Your task to perform on an android device: open sync settings in chrome Image 0: 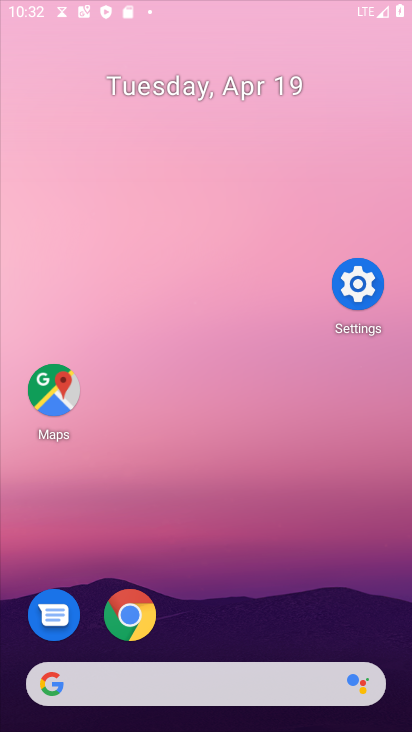
Step 0: drag from (264, 197) to (130, 102)
Your task to perform on an android device: open sync settings in chrome Image 1: 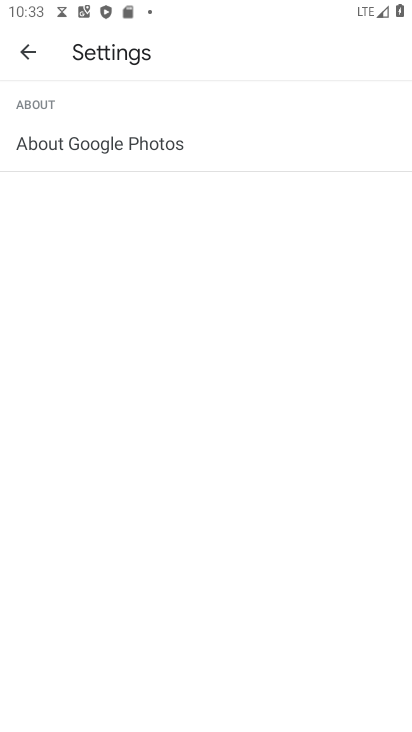
Step 1: click (15, 44)
Your task to perform on an android device: open sync settings in chrome Image 2: 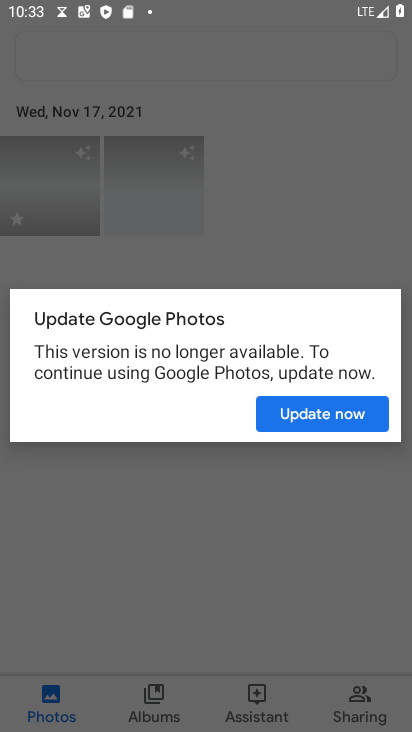
Step 2: drag from (222, 446) to (154, 6)
Your task to perform on an android device: open sync settings in chrome Image 3: 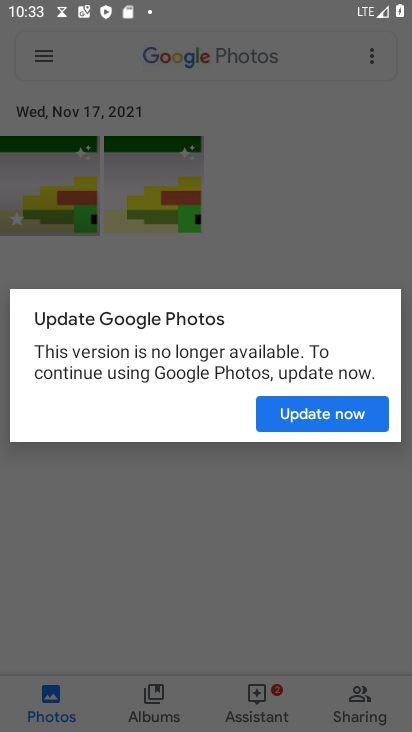
Step 3: click (87, 174)
Your task to perform on an android device: open sync settings in chrome Image 4: 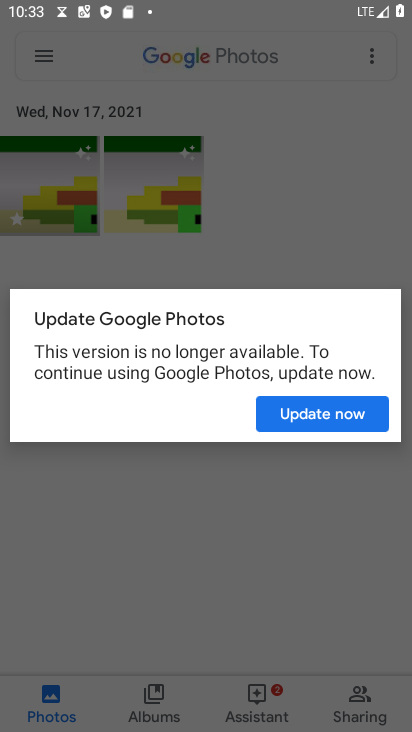
Step 4: press home button
Your task to perform on an android device: open sync settings in chrome Image 5: 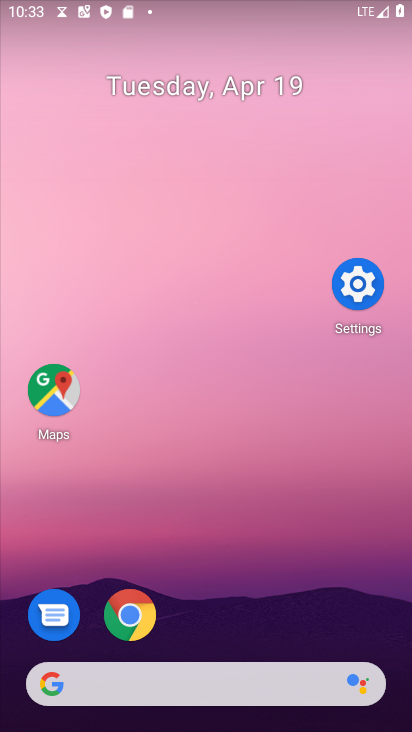
Step 5: drag from (196, 643) to (225, 37)
Your task to perform on an android device: open sync settings in chrome Image 6: 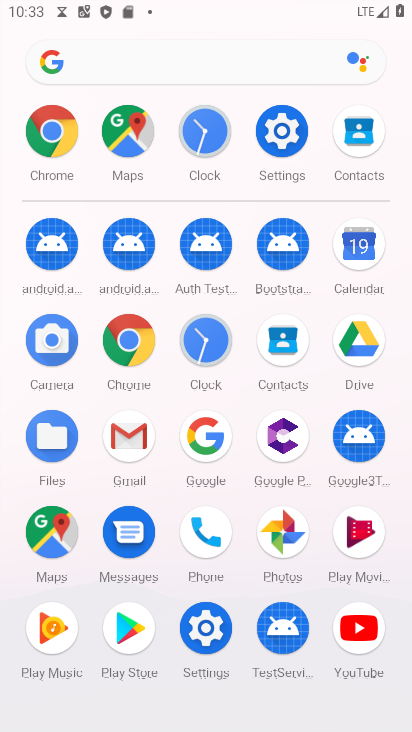
Step 6: click (116, 325)
Your task to perform on an android device: open sync settings in chrome Image 7: 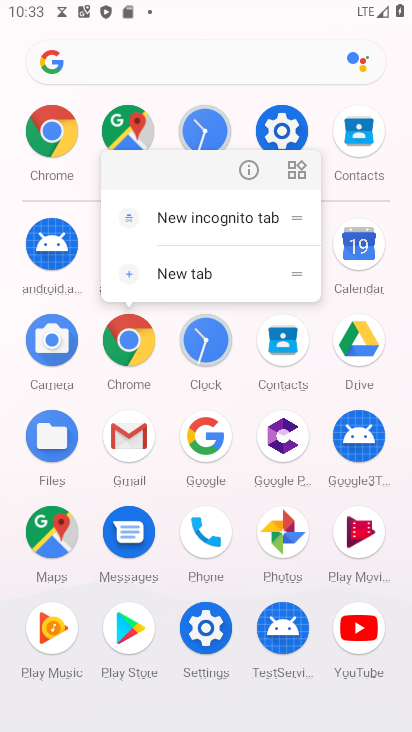
Step 7: click (233, 167)
Your task to perform on an android device: open sync settings in chrome Image 8: 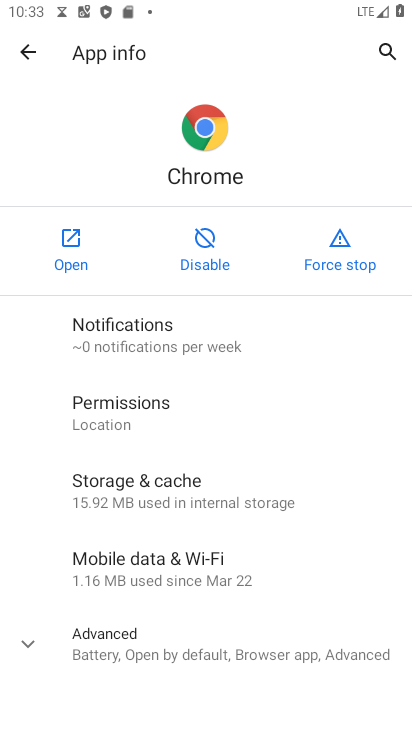
Step 8: click (60, 236)
Your task to perform on an android device: open sync settings in chrome Image 9: 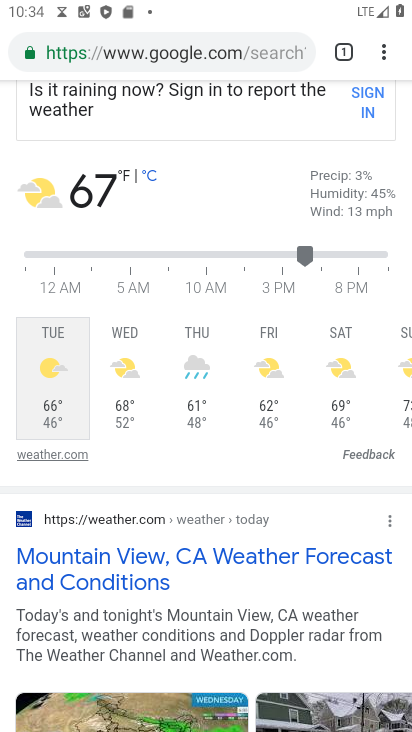
Step 9: drag from (230, 584) to (297, 226)
Your task to perform on an android device: open sync settings in chrome Image 10: 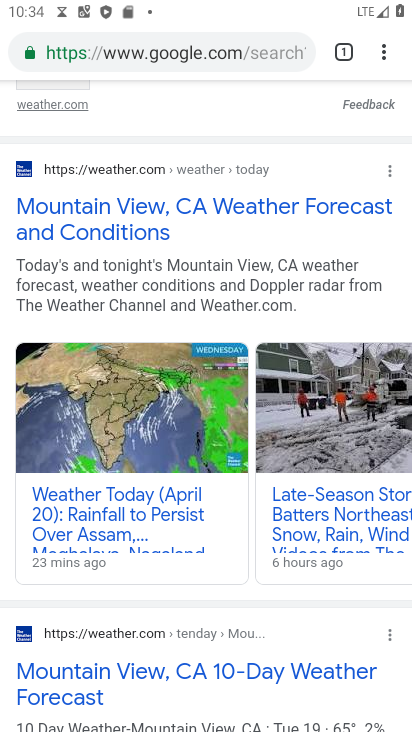
Step 10: drag from (234, 637) to (271, 156)
Your task to perform on an android device: open sync settings in chrome Image 11: 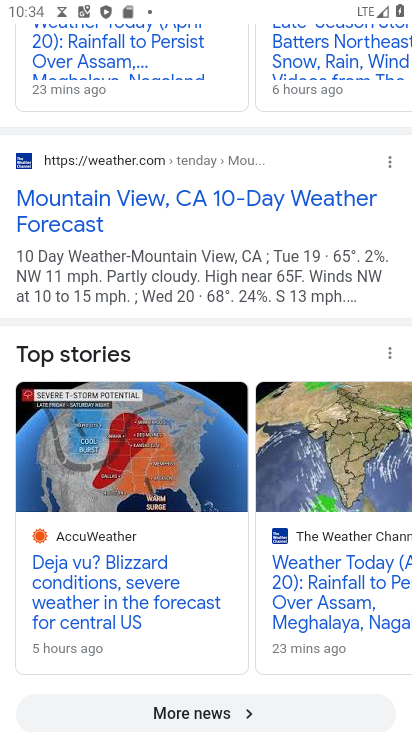
Step 11: drag from (245, 717) to (268, 267)
Your task to perform on an android device: open sync settings in chrome Image 12: 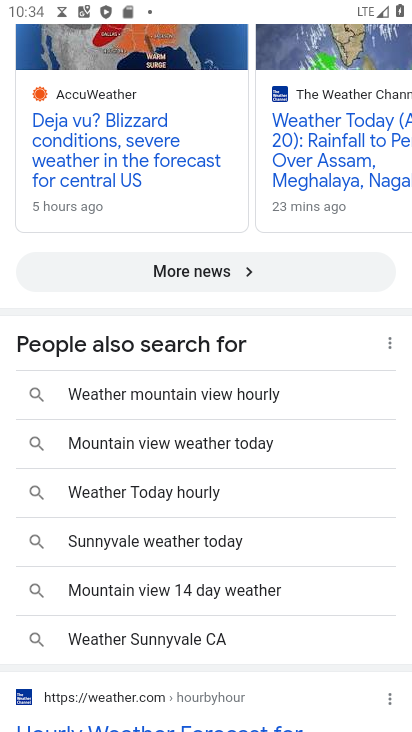
Step 12: drag from (188, 649) to (242, 266)
Your task to perform on an android device: open sync settings in chrome Image 13: 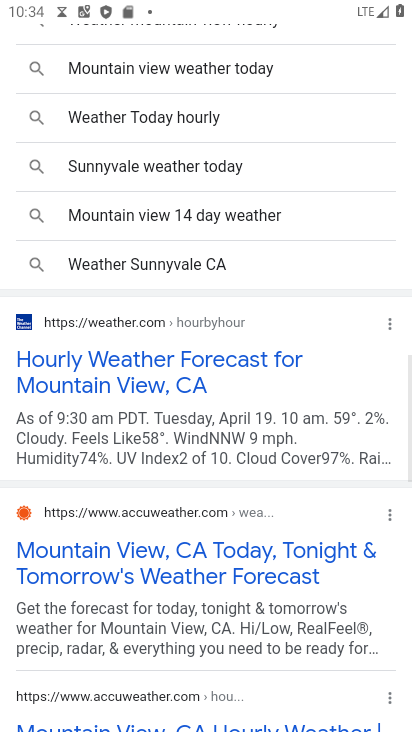
Step 13: drag from (209, 106) to (277, 730)
Your task to perform on an android device: open sync settings in chrome Image 14: 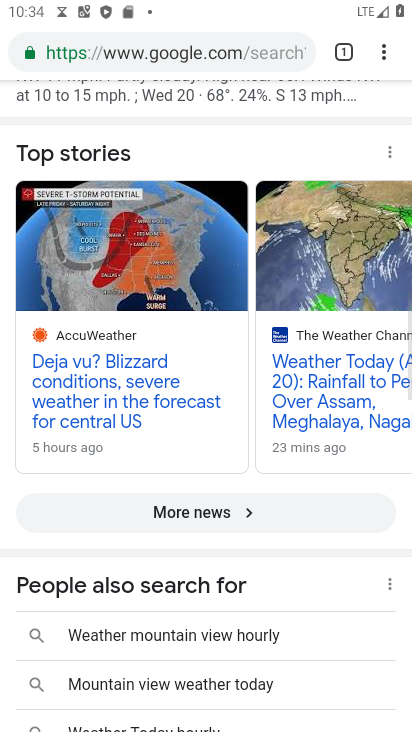
Step 14: drag from (234, 174) to (408, 607)
Your task to perform on an android device: open sync settings in chrome Image 15: 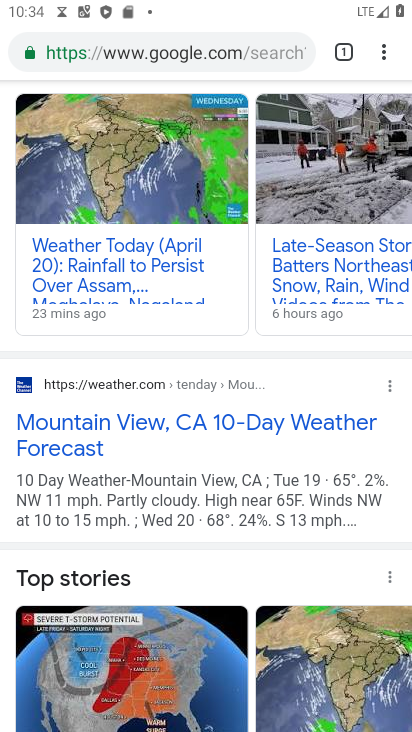
Step 15: drag from (389, 53) to (240, 582)
Your task to perform on an android device: open sync settings in chrome Image 16: 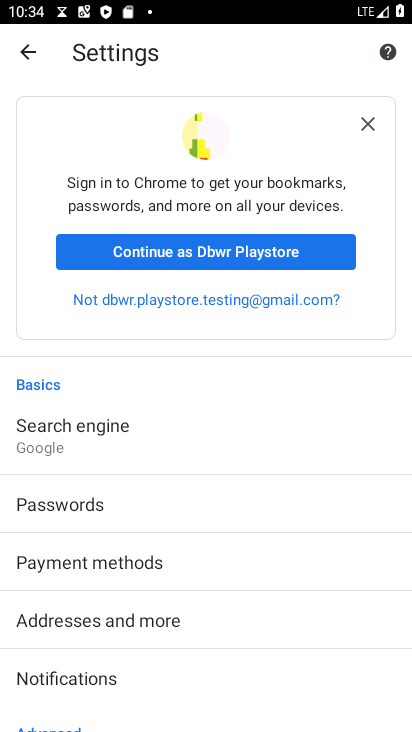
Step 16: drag from (199, 494) to (228, 119)
Your task to perform on an android device: open sync settings in chrome Image 17: 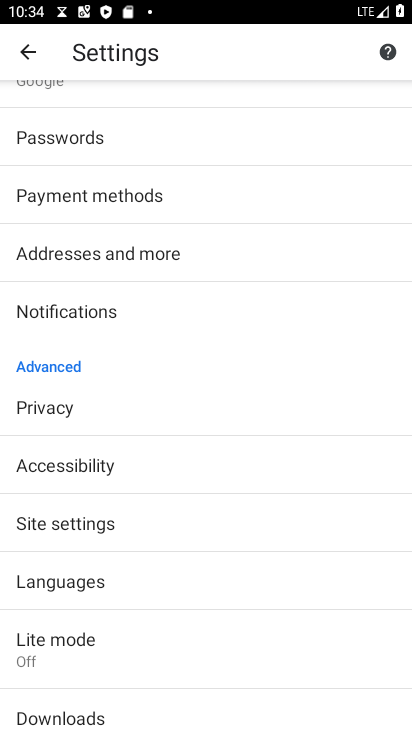
Step 17: drag from (267, 161) to (319, 686)
Your task to perform on an android device: open sync settings in chrome Image 18: 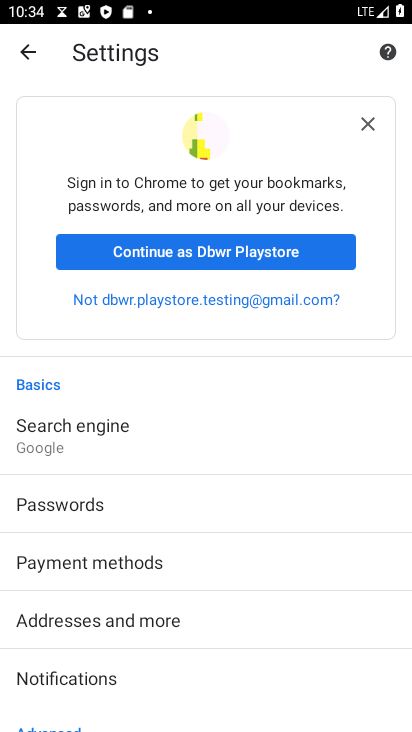
Step 18: click (365, 121)
Your task to perform on an android device: open sync settings in chrome Image 19: 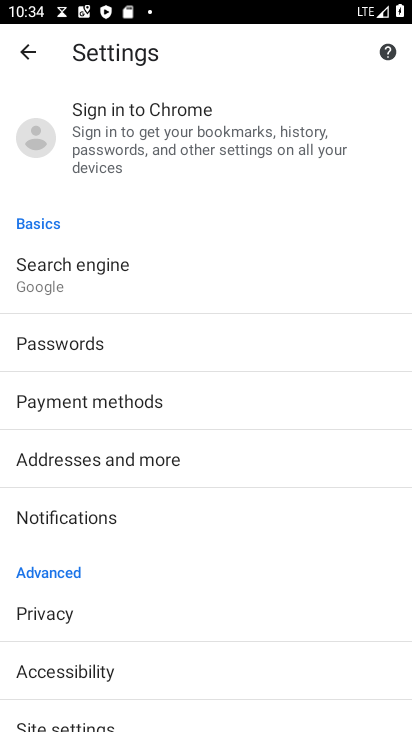
Step 19: drag from (156, 570) to (251, 55)
Your task to perform on an android device: open sync settings in chrome Image 20: 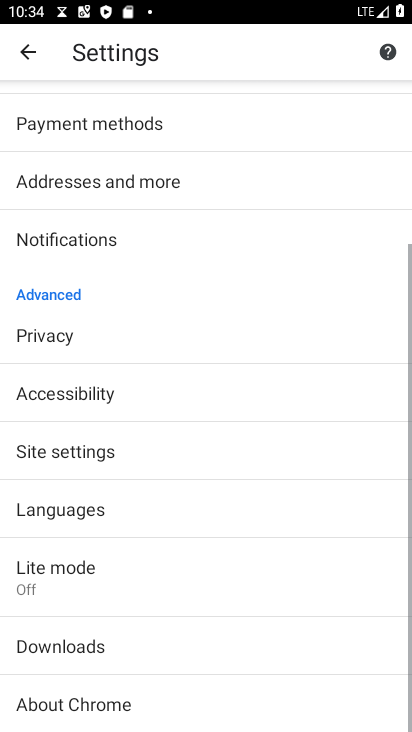
Step 20: drag from (180, 623) to (132, 255)
Your task to perform on an android device: open sync settings in chrome Image 21: 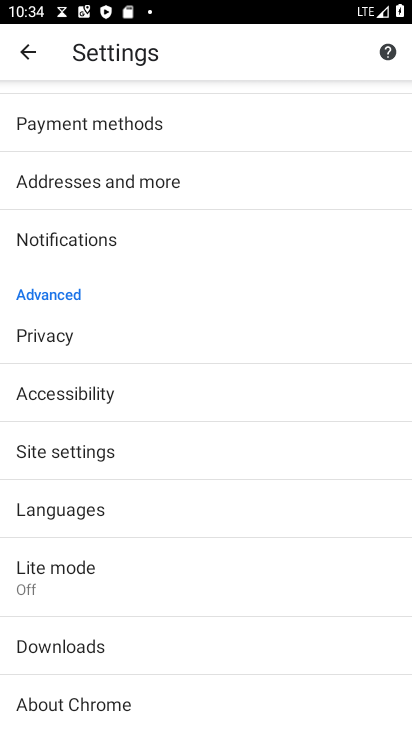
Step 21: drag from (232, 577) to (200, 277)
Your task to perform on an android device: open sync settings in chrome Image 22: 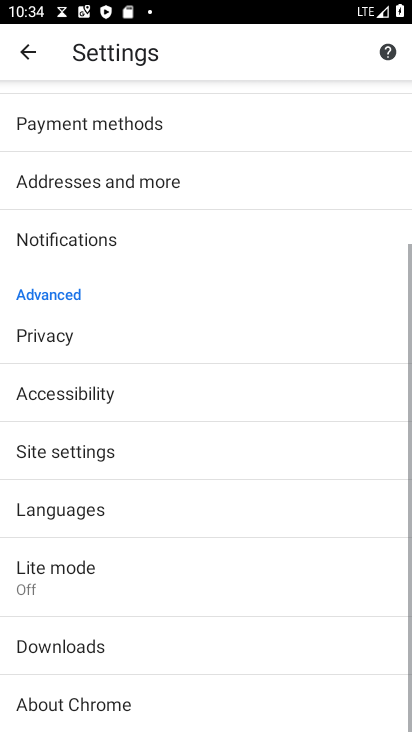
Step 22: click (104, 449)
Your task to perform on an android device: open sync settings in chrome Image 23: 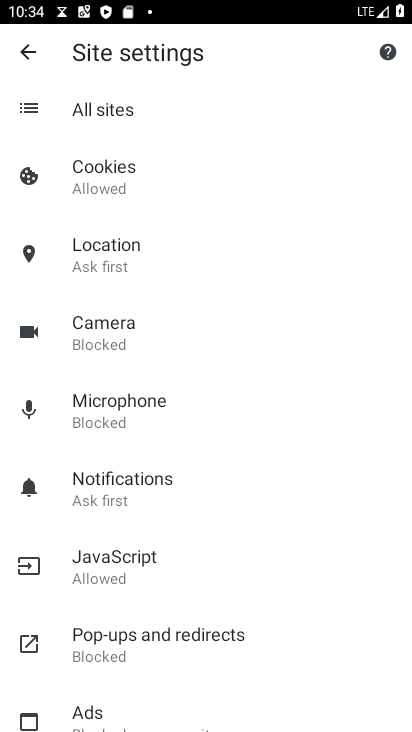
Step 23: drag from (175, 532) to (233, 199)
Your task to perform on an android device: open sync settings in chrome Image 24: 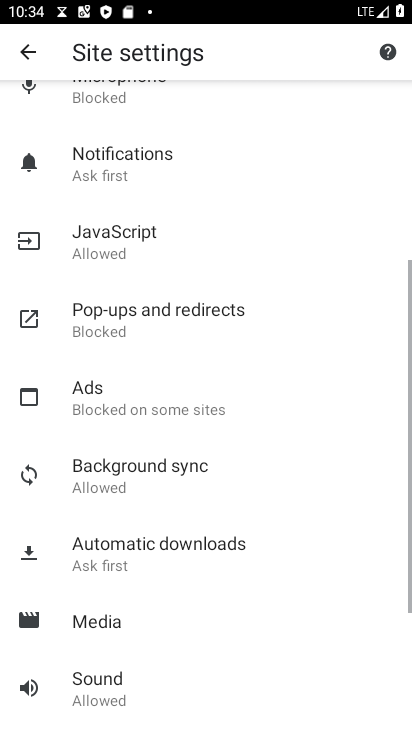
Step 24: click (177, 475)
Your task to perform on an android device: open sync settings in chrome Image 25: 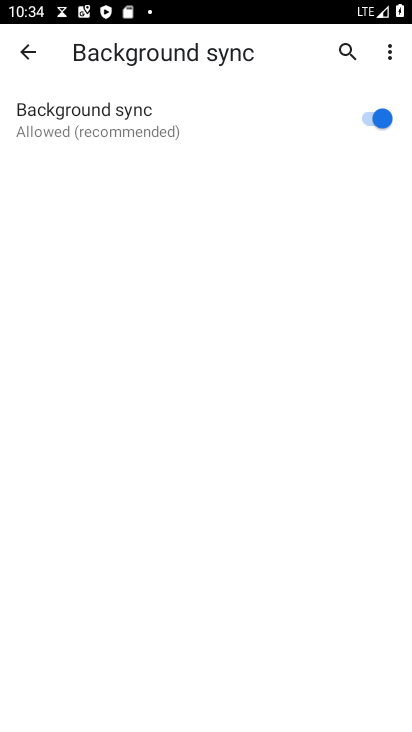
Step 25: drag from (258, 422) to (272, 232)
Your task to perform on an android device: open sync settings in chrome Image 26: 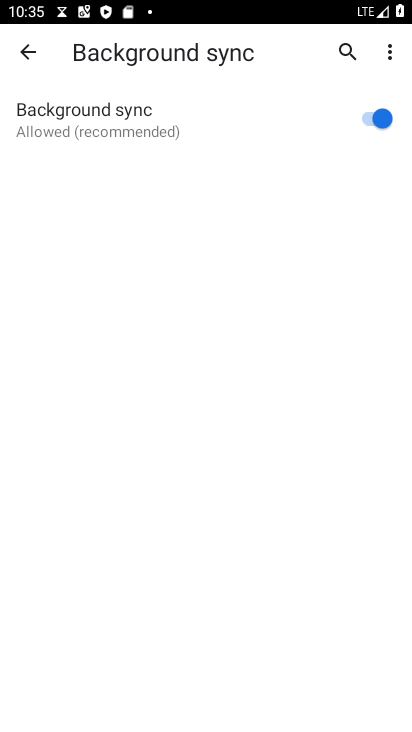
Step 26: drag from (186, 509) to (199, 179)
Your task to perform on an android device: open sync settings in chrome Image 27: 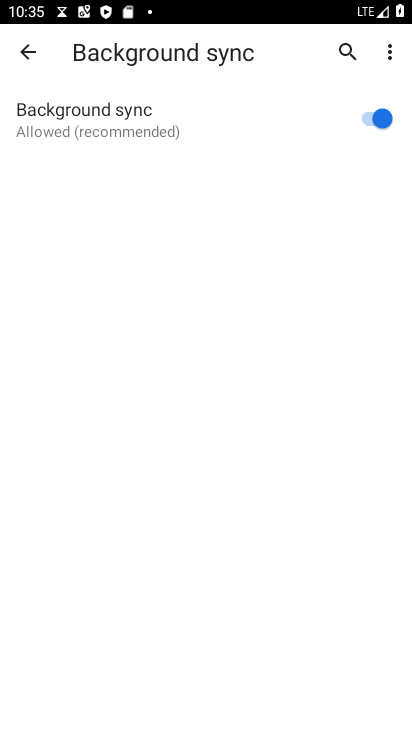
Step 27: drag from (210, 503) to (232, 211)
Your task to perform on an android device: open sync settings in chrome Image 28: 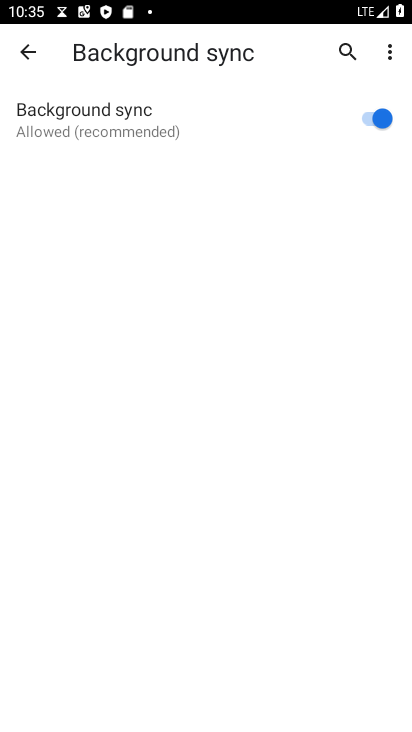
Step 28: drag from (266, 426) to (259, 325)
Your task to perform on an android device: open sync settings in chrome Image 29: 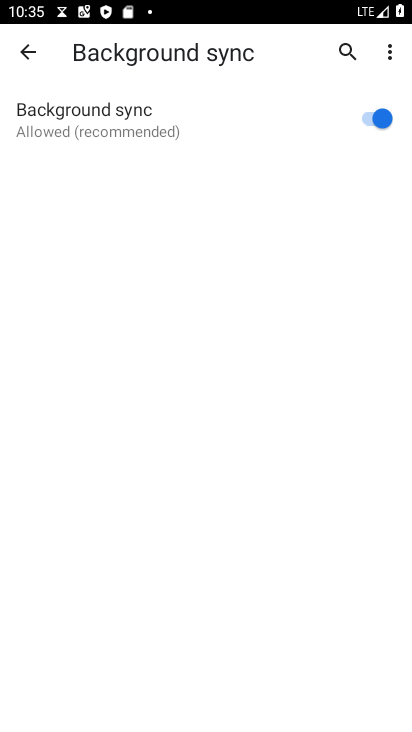
Step 29: drag from (289, 445) to (289, 360)
Your task to perform on an android device: open sync settings in chrome Image 30: 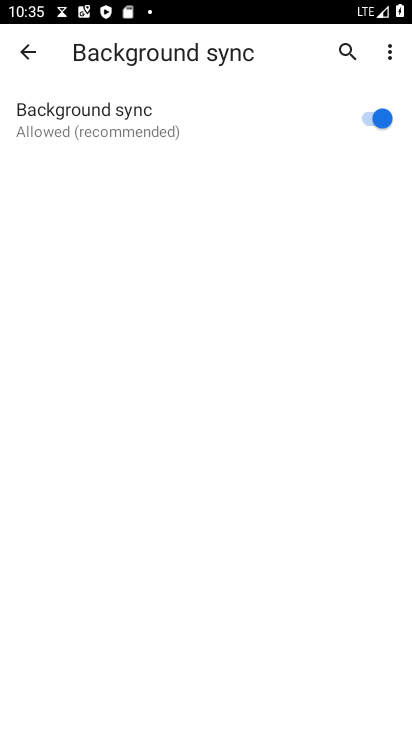
Step 30: click (366, 109)
Your task to perform on an android device: open sync settings in chrome Image 31: 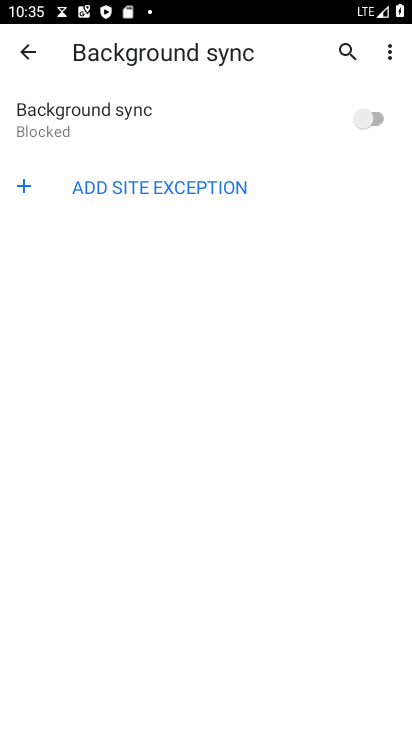
Step 31: task complete